Your task to perform on an android device: Open maps Image 0: 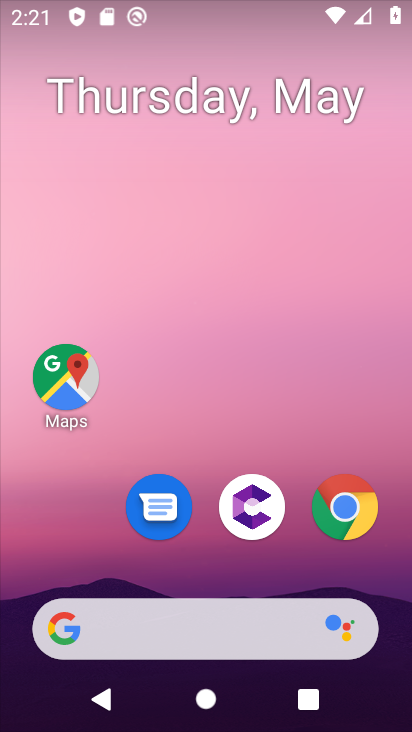
Step 0: press home button
Your task to perform on an android device: Open maps Image 1: 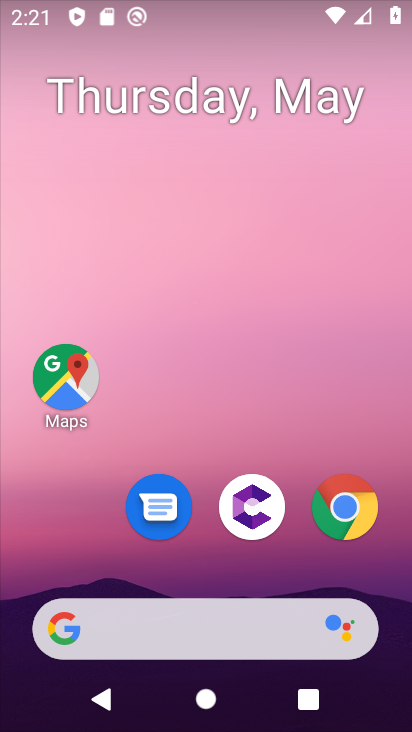
Step 1: click (74, 386)
Your task to perform on an android device: Open maps Image 2: 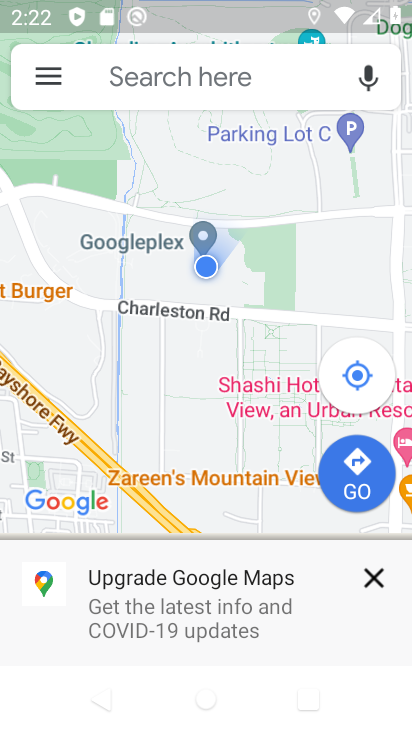
Step 2: task complete